Your task to perform on an android device: Do I have any events this weekend? Image 0: 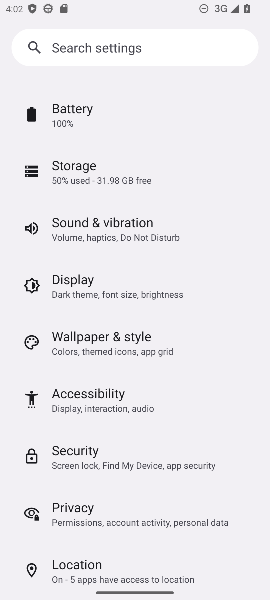
Step 0: press home button
Your task to perform on an android device: Do I have any events this weekend? Image 1: 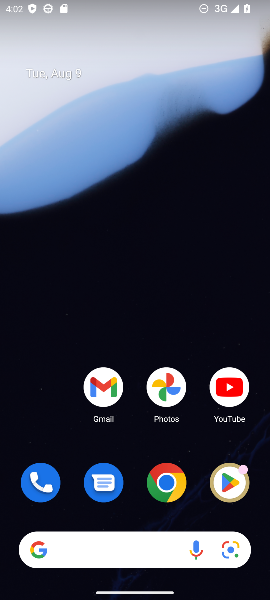
Step 1: drag from (127, 443) to (162, 123)
Your task to perform on an android device: Do I have any events this weekend? Image 2: 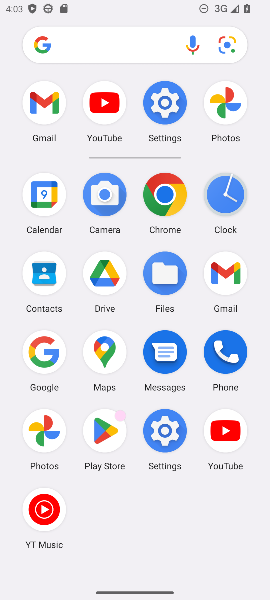
Step 2: click (53, 205)
Your task to perform on an android device: Do I have any events this weekend? Image 3: 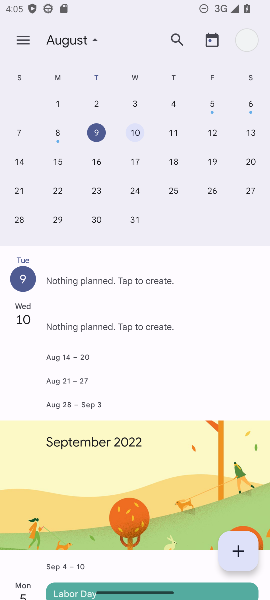
Step 3: click (245, 140)
Your task to perform on an android device: Do I have any events this weekend? Image 4: 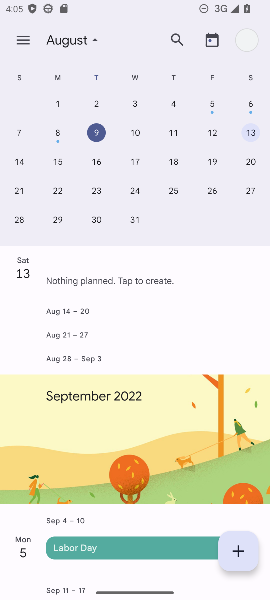
Step 4: task complete